Your task to perform on an android device: turn off smart reply in the gmail app Image 0: 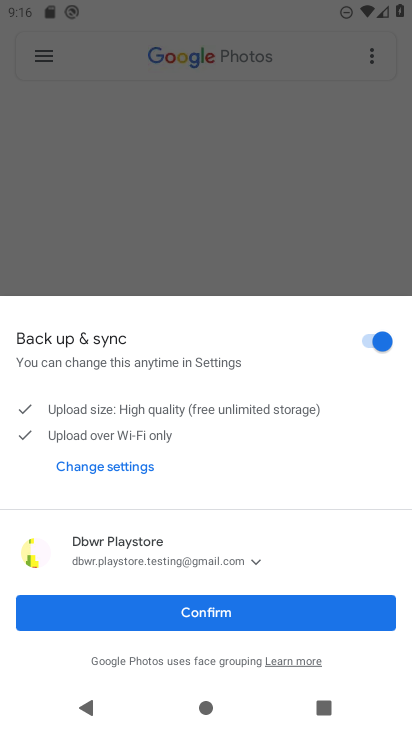
Step 0: press home button
Your task to perform on an android device: turn off smart reply in the gmail app Image 1: 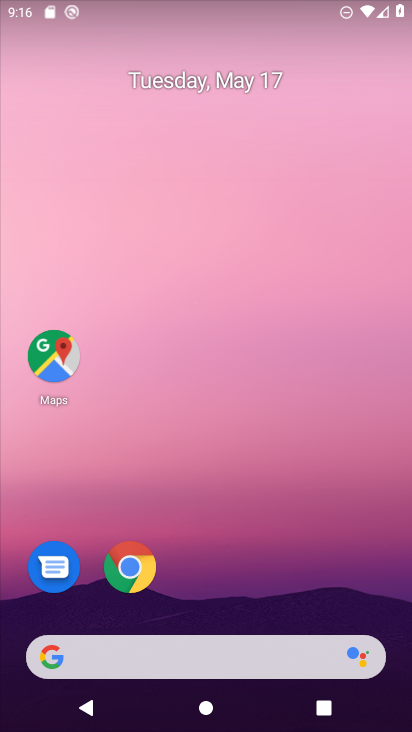
Step 1: drag from (230, 639) to (325, 170)
Your task to perform on an android device: turn off smart reply in the gmail app Image 2: 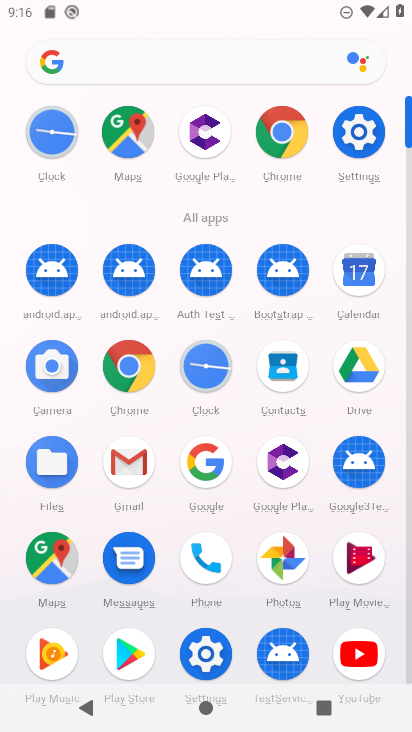
Step 2: click (138, 468)
Your task to perform on an android device: turn off smart reply in the gmail app Image 3: 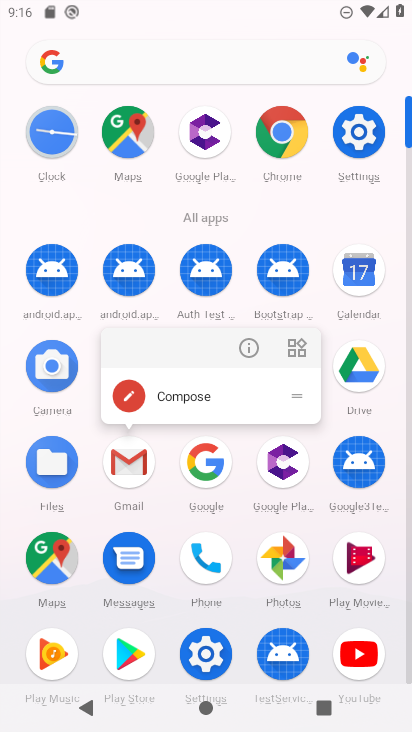
Step 3: click (122, 465)
Your task to perform on an android device: turn off smart reply in the gmail app Image 4: 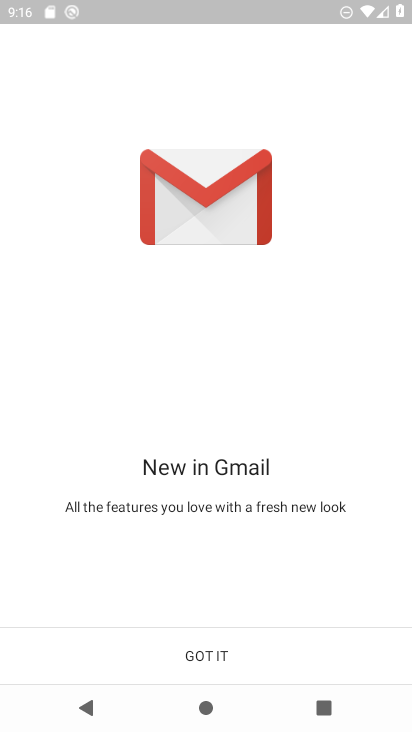
Step 4: click (205, 658)
Your task to perform on an android device: turn off smart reply in the gmail app Image 5: 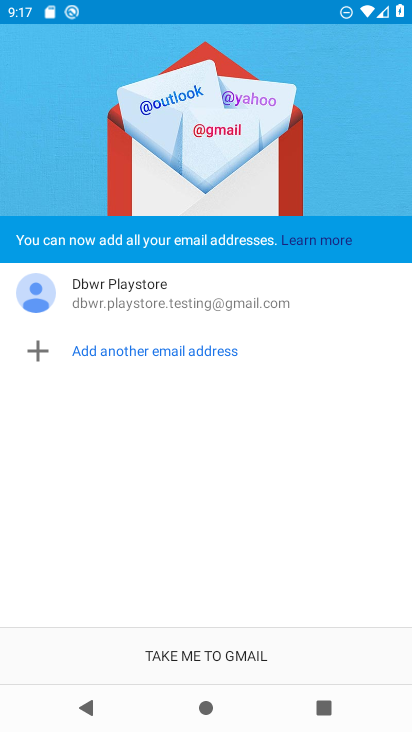
Step 5: click (258, 662)
Your task to perform on an android device: turn off smart reply in the gmail app Image 6: 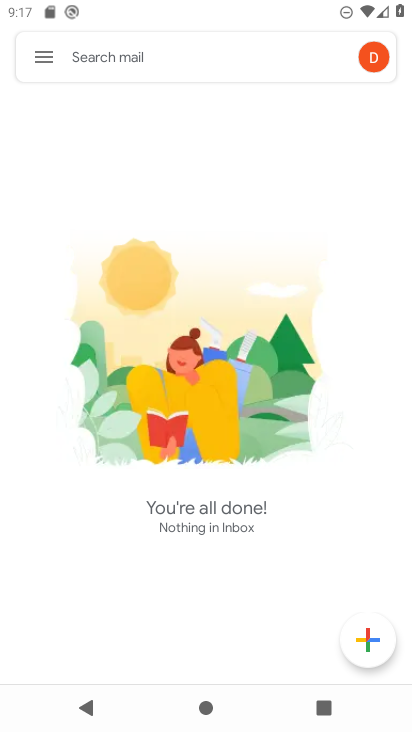
Step 6: click (49, 67)
Your task to perform on an android device: turn off smart reply in the gmail app Image 7: 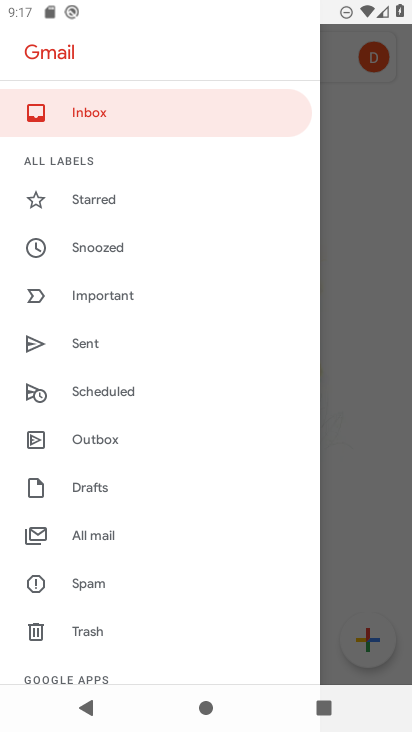
Step 7: drag from (107, 598) to (192, 228)
Your task to perform on an android device: turn off smart reply in the gmail app Image 8: 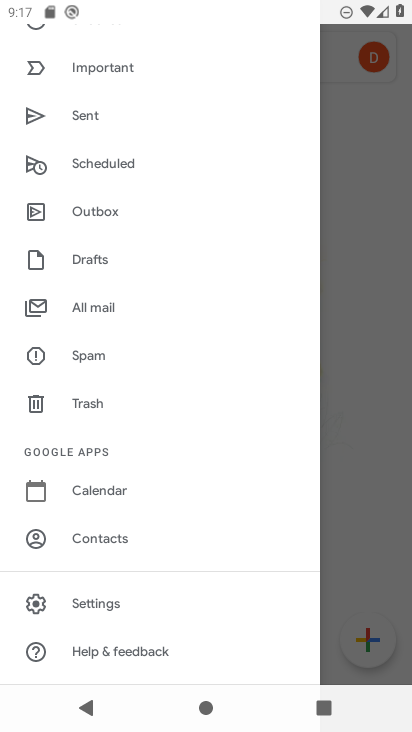
Step 8: click (156, 604)
Your task to perform on an android device: turn off smart reply in the gmail app Image 9: 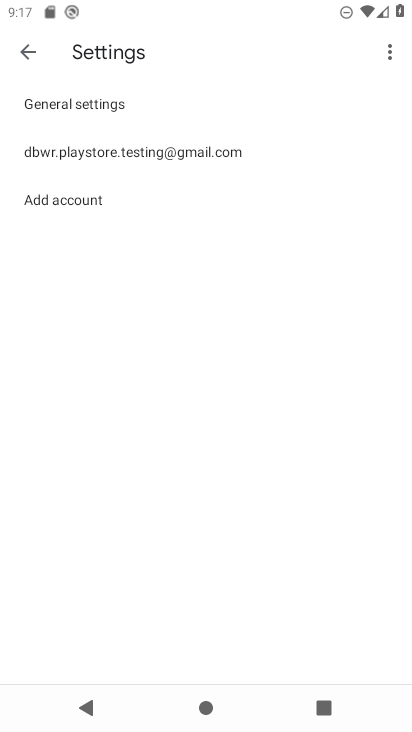
Step 9: click (190, 159)
Your task to perform on an android device: turn off smart reply in the gmail app Image 10: 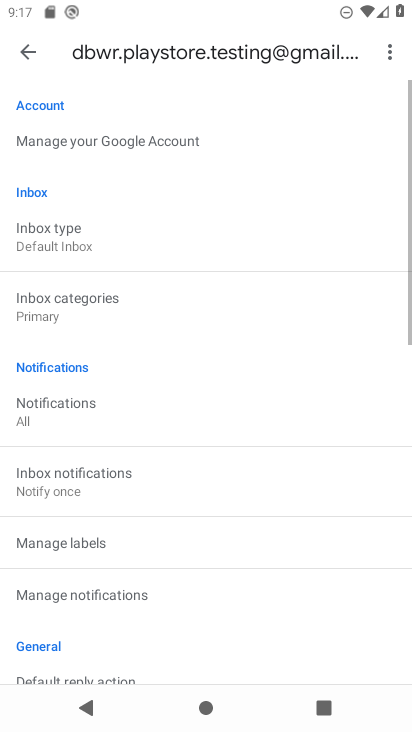
Step 10: drag from (167, 603) to (262, 174)
Your task to perform on an android device: turn off smart reply in the gmail app Image 11: 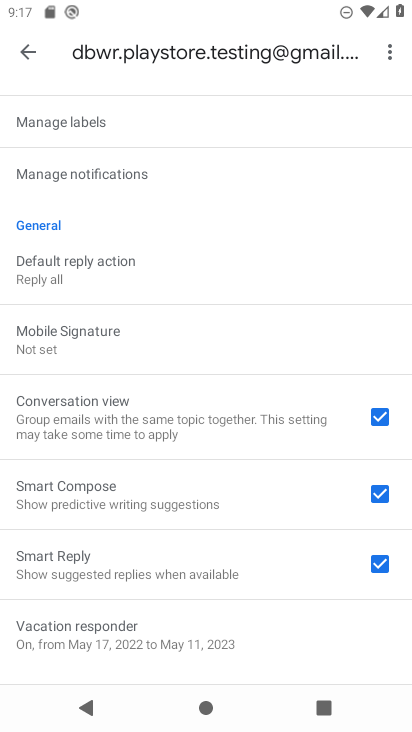
Step 11: click (377, 565)
Your task to perform on an android device: turn off smart reply in the gmail app Image 12: 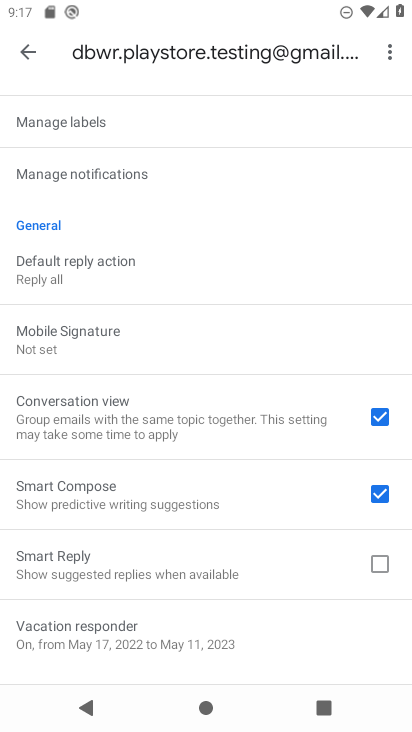
Step 12: task complete